Your task to perform on an android device: visit the assistant section in the google photos Image 0: 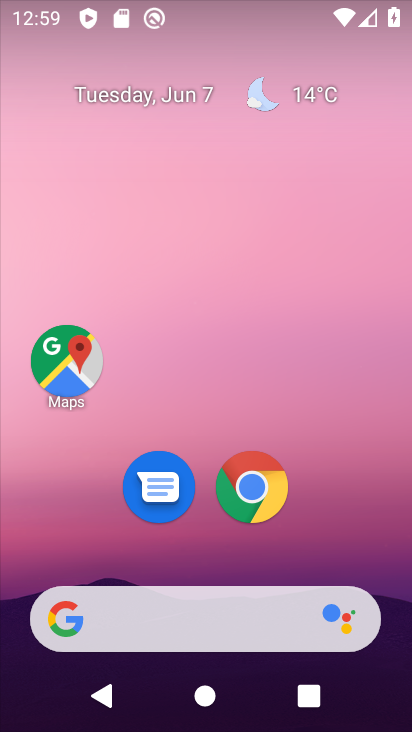
Step 0: drag from (196, 535) to (241, 175)
Your task to perform on an android device: visit the assistant section in the google photos Image 1: 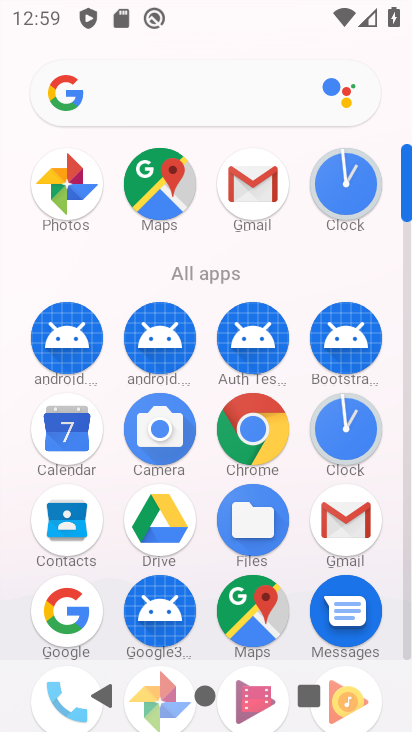
Step 1: drag from (183, 603) to (197, 446)
Your task to perform on an android device: visit the assistant section in the google photos Image 2: 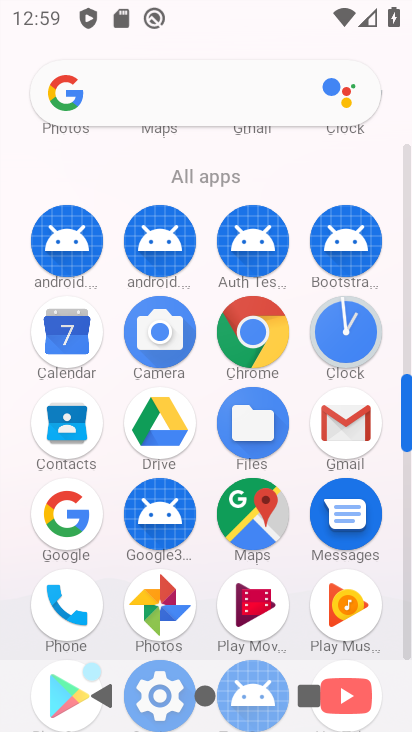
Step 2: click (160, 608)
Your task to perform on an android device: visit the assistant section in the google photos Image 3: 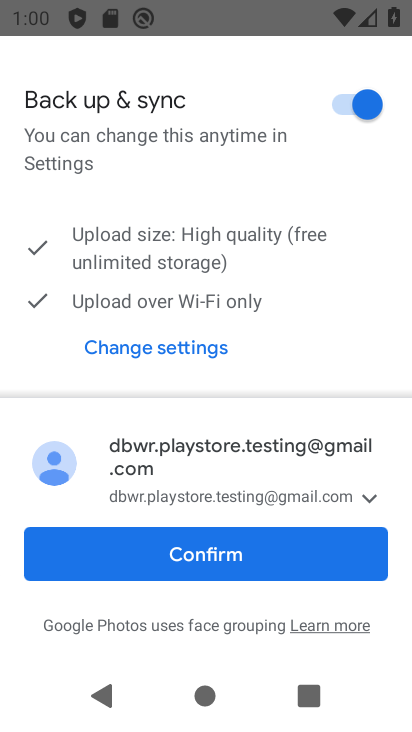
Step 3: click (263, 552)
Your task to perform on an android device: visit the assistant section in the google photos Image 4: 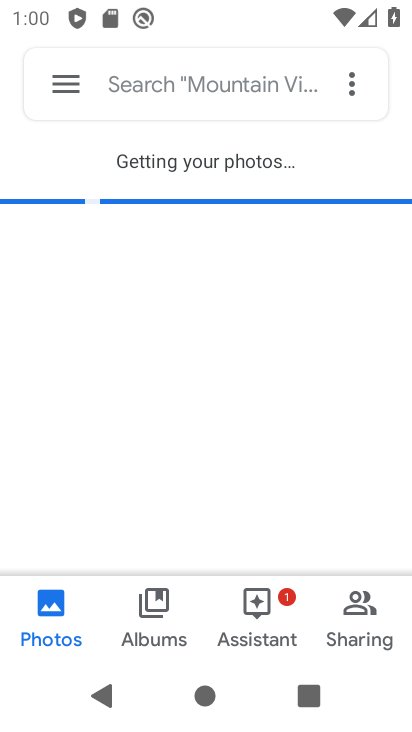
Step 4: click (262, 613)
Your task to perform on an android device: visit the assistant section in the google photos Image 5: 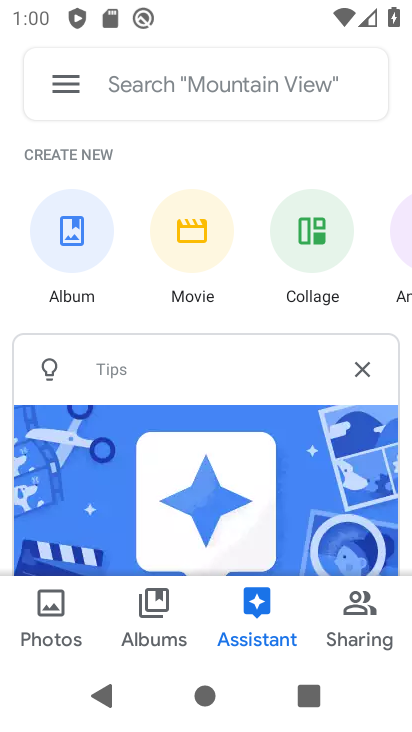
Step 5: task complete